Your task to perform on an android device: Check the news Image 0: 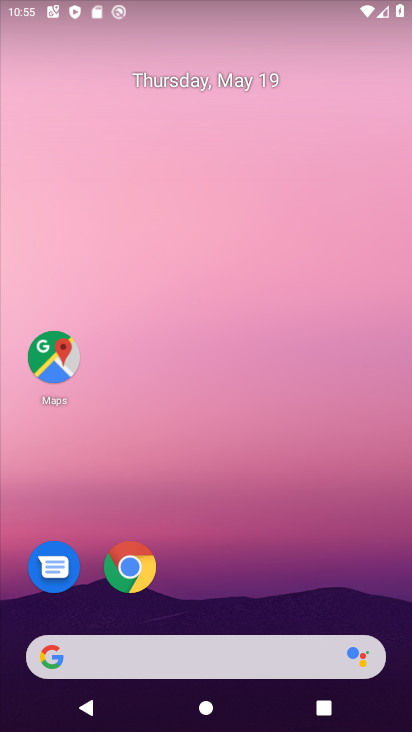
Step 0: drag from (11, 235) to (410, 287)
Your task to perform on an android device: Check the news Image 1: 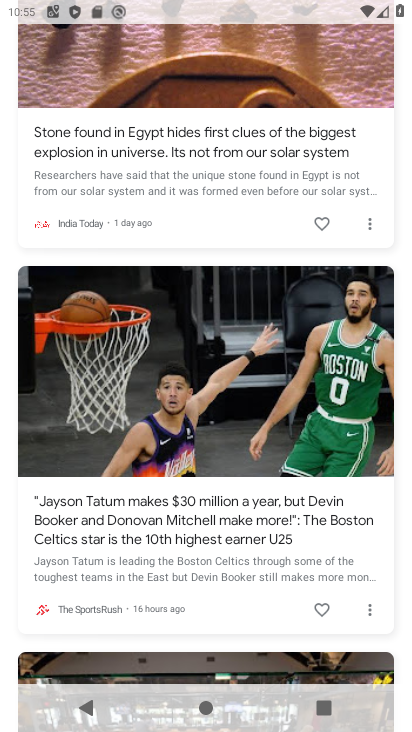
Step 1: task complete